Your task to perform on an android device: Do I have any events this weekend? Image 0: 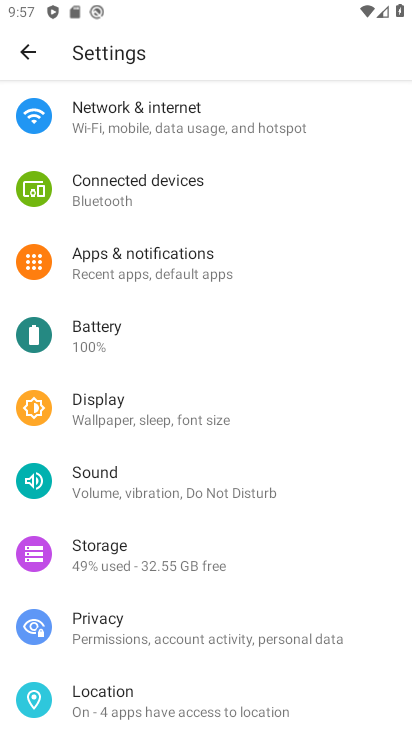
Step 0: press home button
Your task to perform on an android device: Do I have any events this weekend? Image 1: 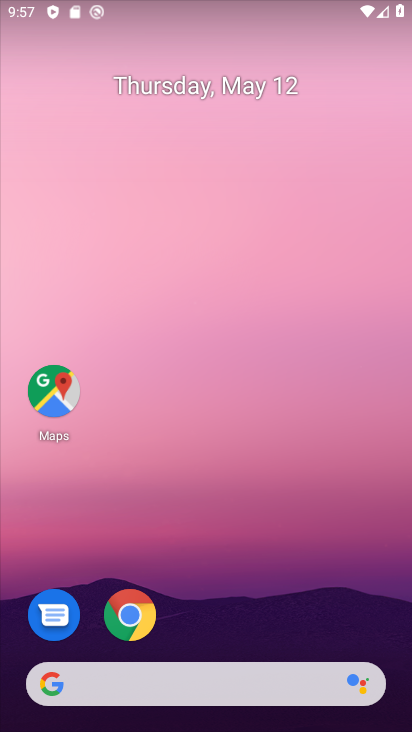
Step 1: drag from (171, 729) to (167, 211)
Your task to perform on an android device: Do I have any events this weekend? Image 2: 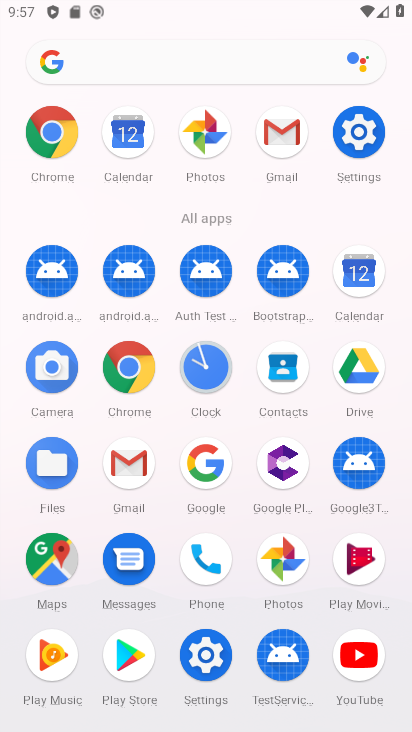
Step 2: click (360, 279)
Your task to perform on an android device: Do I have any events this weekend? Image 3: 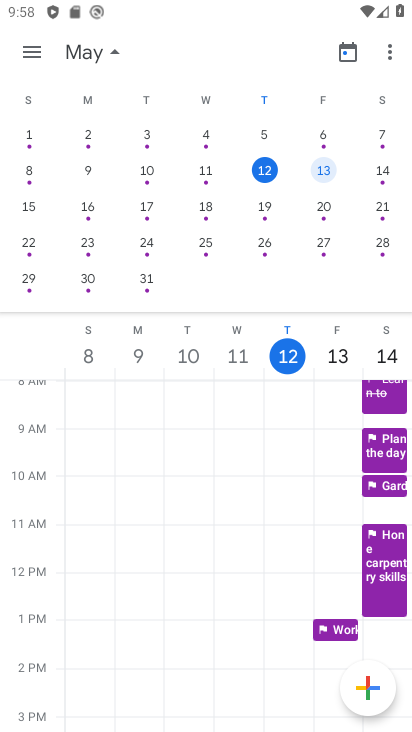
Step 3: drag from (374, 192) to (244, 184)
Your task to perform on an android device: Do I have any events this weekend? Image 4: 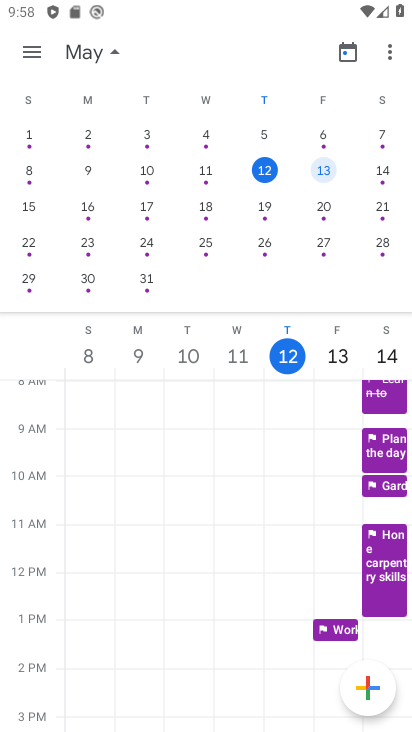
Step 4: click (381, 168)
Your task to perform on an android device: Do I have any events this weekend? Image 5: 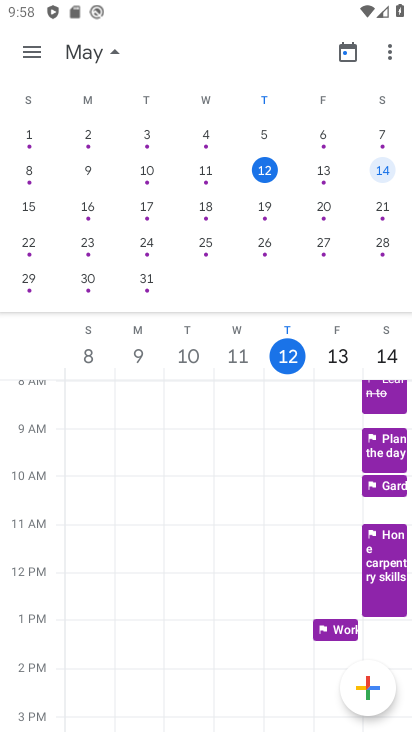
Step 5: click (381, 166)
Your task to perform on an android device: Do I have any events this weekend? Image 6: 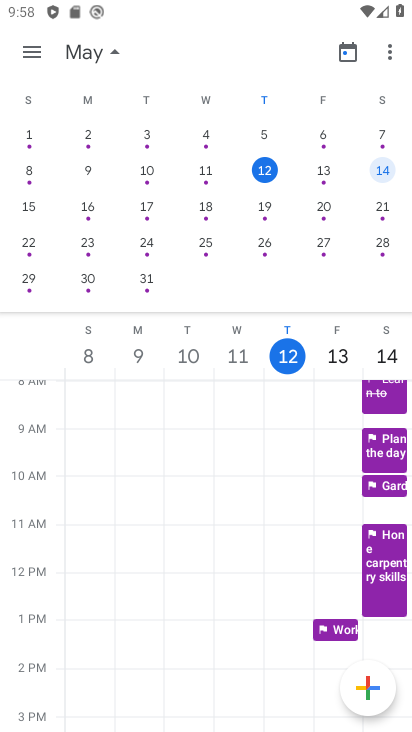
Step 6: click (381, 166)
Your task to perform on an android device: Do I have any events this weekend? Image 7: 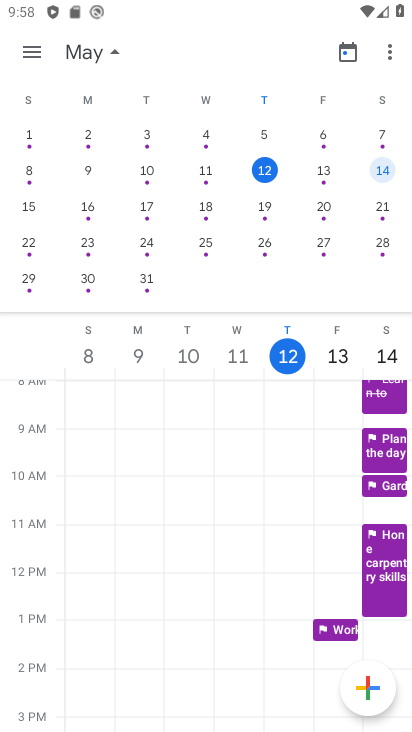
Step 7: click (381, 166)
Your task to perform on an android device: Do I have any events this weekend? Image 8: 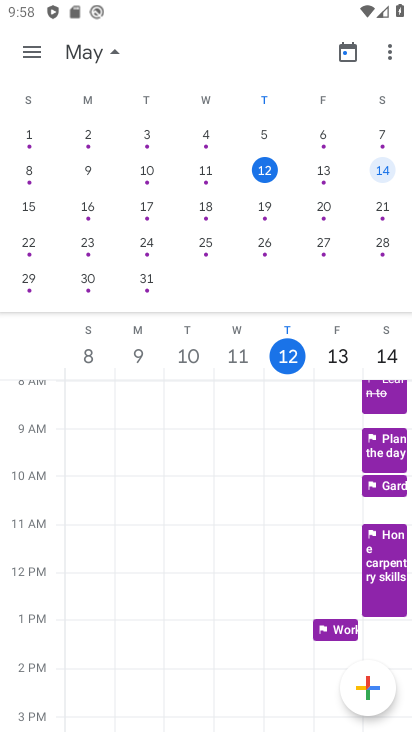
Step 8: click (378, 164)
Your task to perform on an android device: Do I have any events this weekend? Image 9: 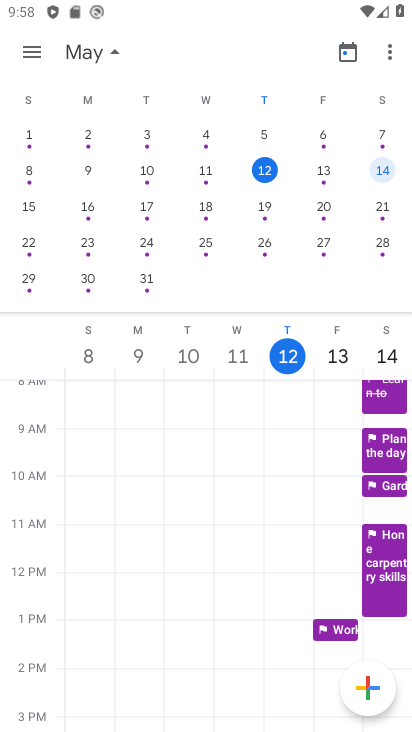
Step 9: click (32, 53)
Your task to perform on an android device: Do I have any events this weekend? Image 10: 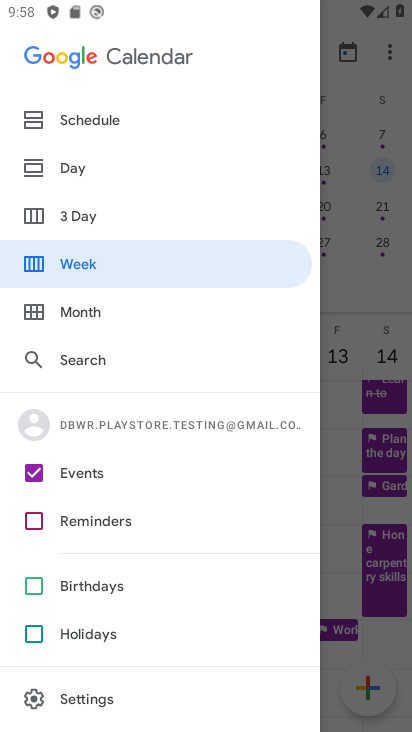
Step 10: click (100, 261)
Your task to perform on an android device: Do I have any events this weekend? Image 11: 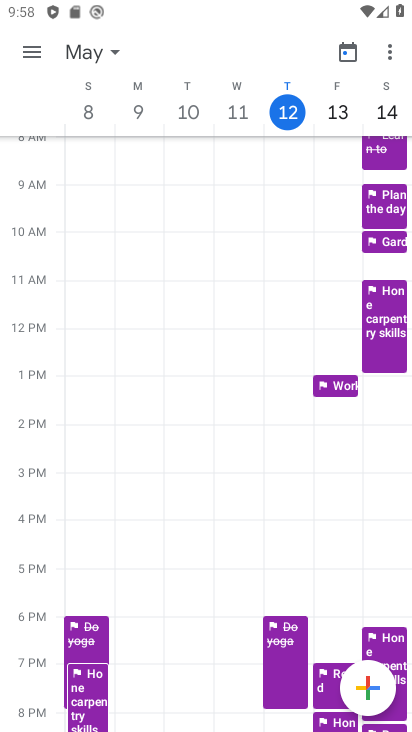
Step 11: click (386, 105)
Your task to perform on an android device: Do I have any events this weekend? Image 12: 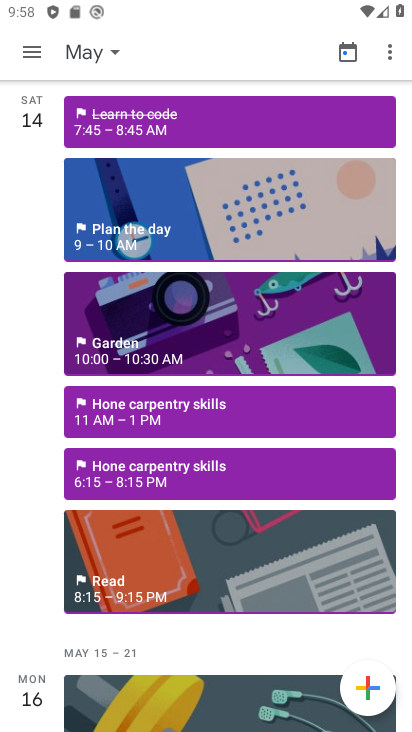
Step 12: task complete